Your task to perform on an android device: change notifications settings Image 0: 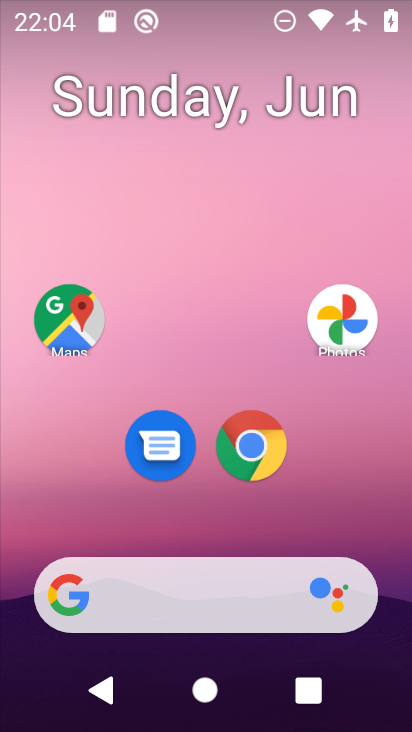
Step 0: drag from (342, 499) to (260, 91)
Your task to perform on an android device: change notifications settings Image 1: 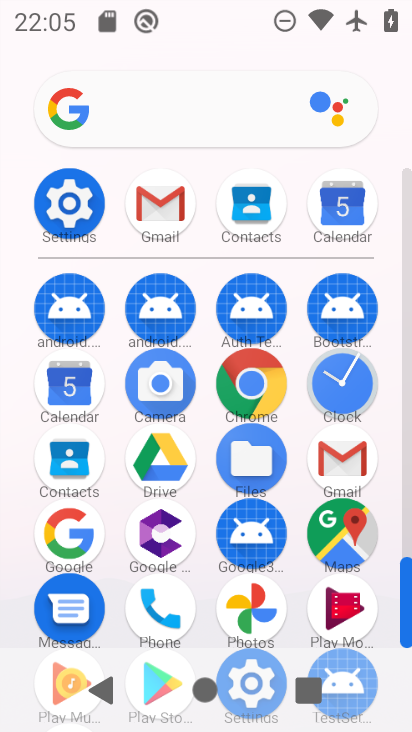
Step 1: click (65, 214)
Your task to perform on an android device: change notifications settings Image 2: 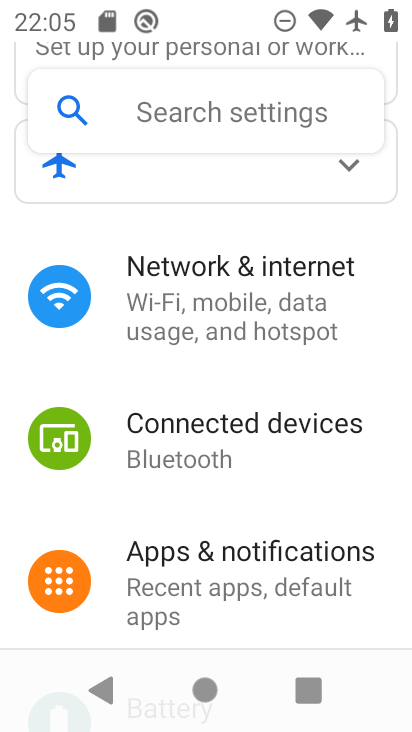
Step 2: click (249, 573)
Your task to perform on an android device: change notifications settings Image 3: 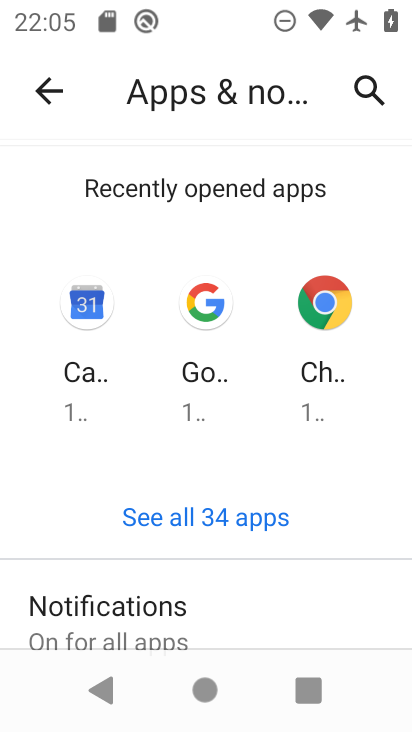
Step 3: task complete